Your task to perform on an android device: set the timer Image 0: 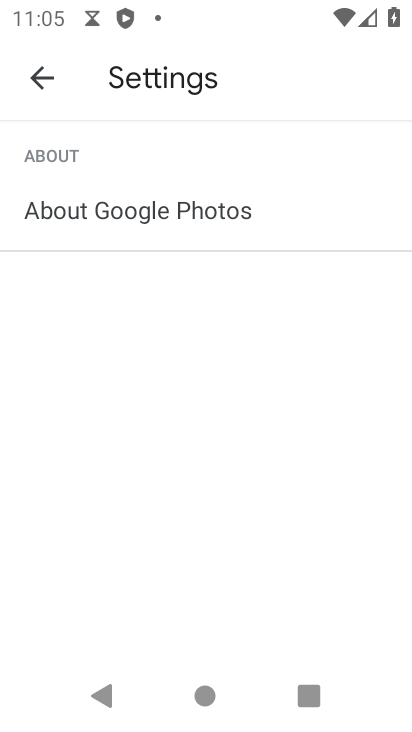
Step 0: press home button
Your task to perform on an android device: set the timer Image 1: 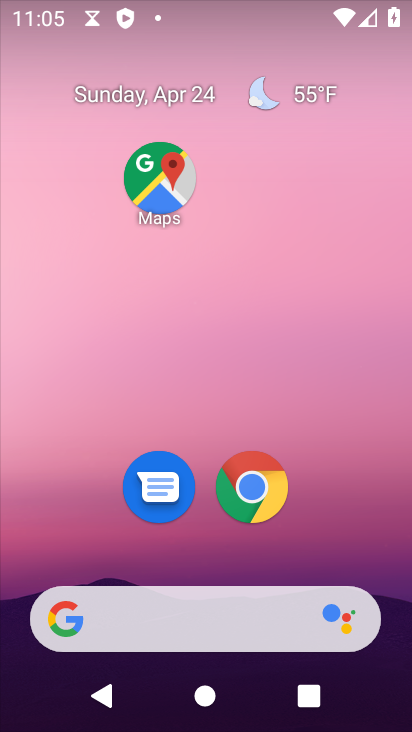
Step 1: drag from (84, 671) to (338, 207)
Your task to perform on an android device: set the timer Image 2: 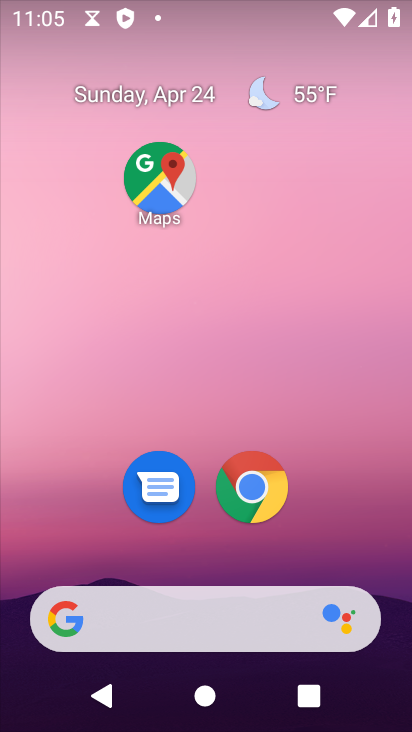
Step 2: drag from (135, 537) to (292, 238)
Your task to perform on an android device: set the timer Image 3: 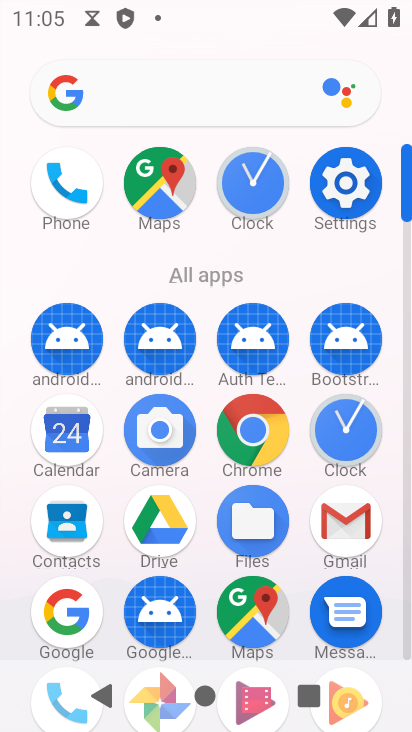
Step 3: click (340, 421)
Your task to perform on an android device: set the timer Image 4: 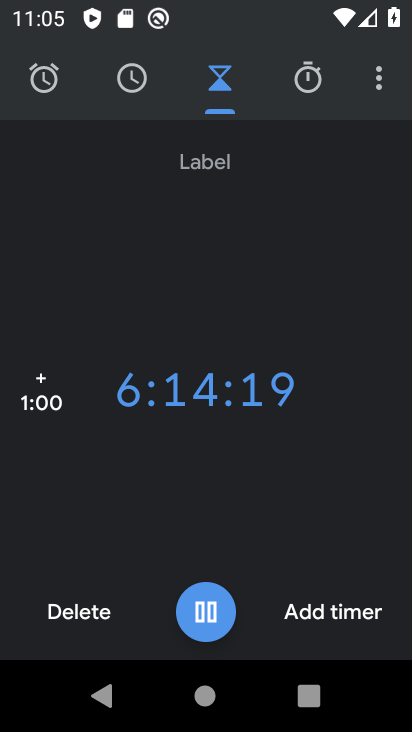
Step 4: click (301, 609)
Your task to perform on an android device: set the timer Image 5: 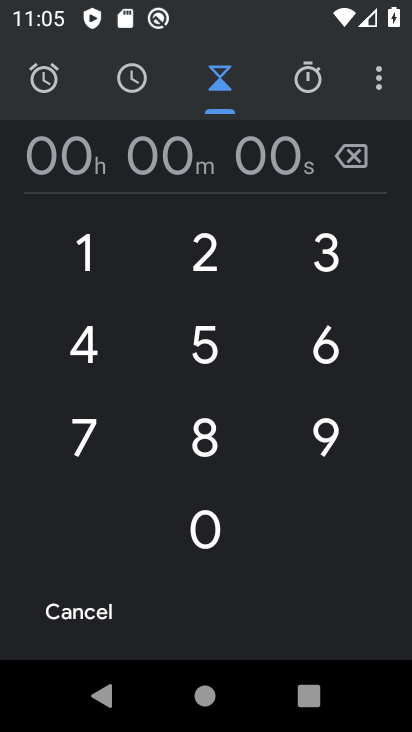
Step 5: click (213, 438)
Your task to perform on an android device: set the timer Image 6: 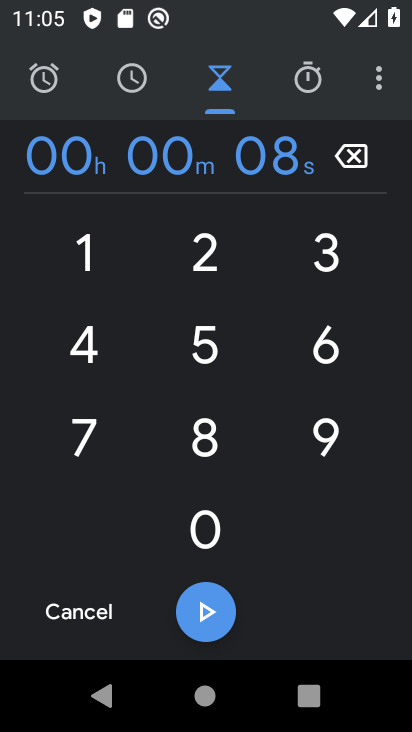
Step 6: click (183, 516)
Your task to perform on an android device: set the timer Image 7: 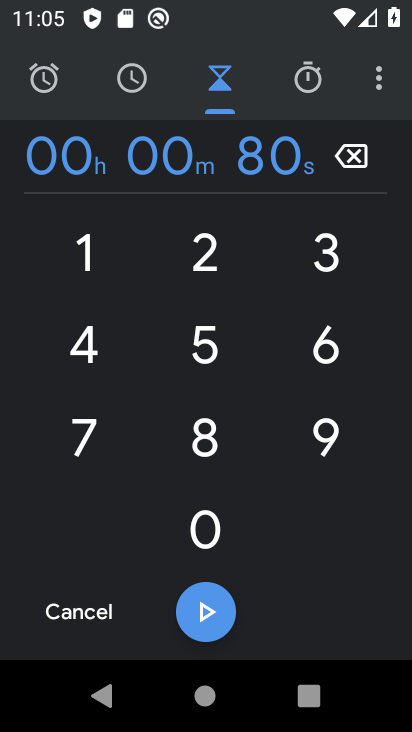
Step 7: click (206, 517)
Your task to perform on an android device: set the timer Image 8: 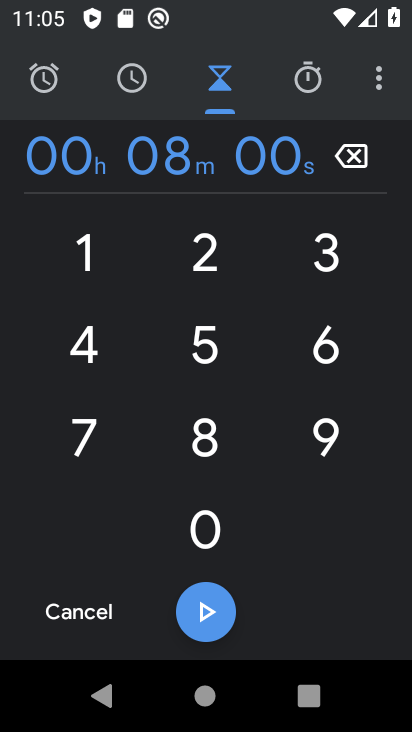
Step 8: click (206, 516)
Your task to perform on an android device: set the timer Image 9: 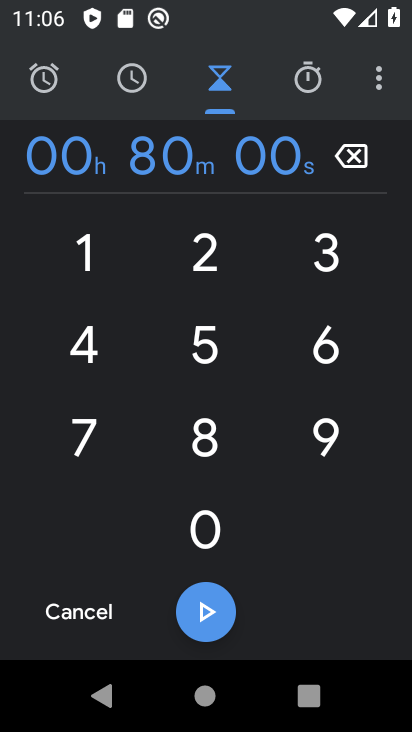
Step 9: click (202, 523)
Your task to perform on an android device: set the timer Image 10: 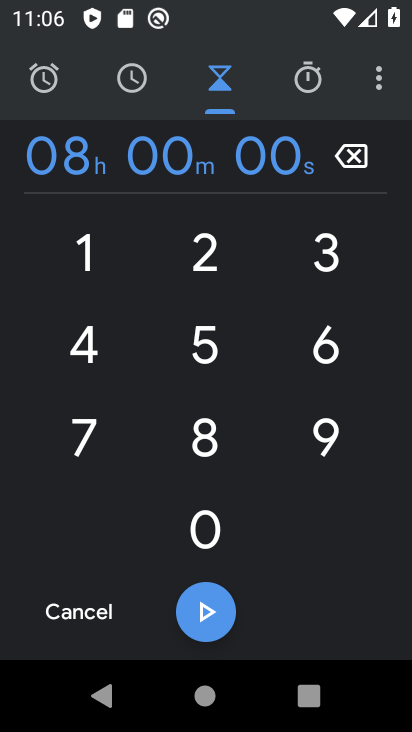
Step 10: click (223, 614)
Your task to perform on an android device: set the timer Image 11: 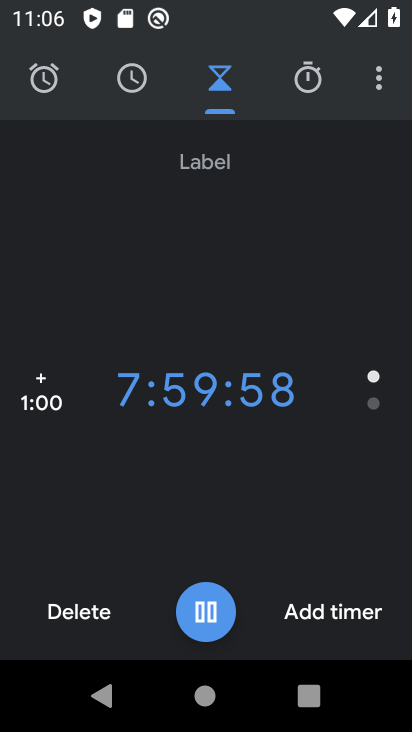
Step 11: task complete